Your task to perform on an android device: Go to Maps Image 0: 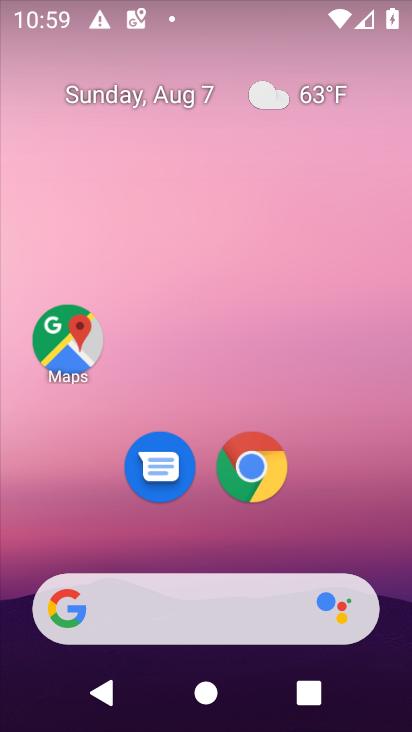
Step 0: drag from (263, 607) to (222, 249)
Your task to perform on an android device: Go to Maps Image 1: 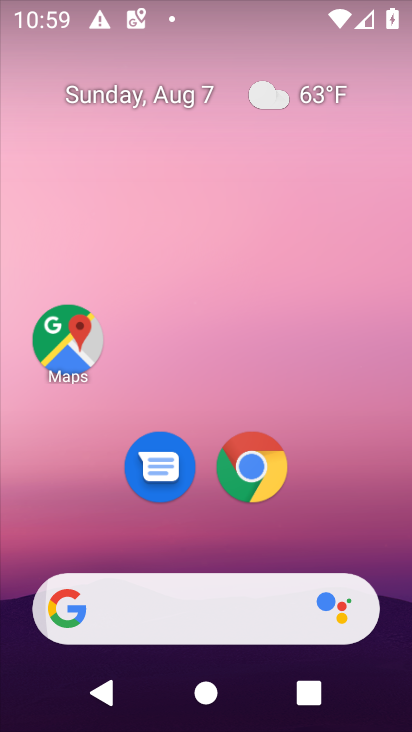
Step 1: drag from (165, 313) to (143, 102)
Your task to perform on an android device: Go to Maps Image 2: 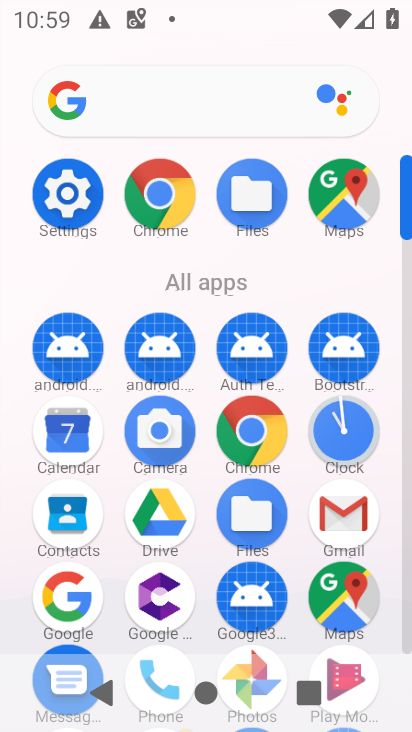
Step 2: drag from (234, 432) to (240, 222)
Your task to perform on an android device: Go to Maps Image 3: 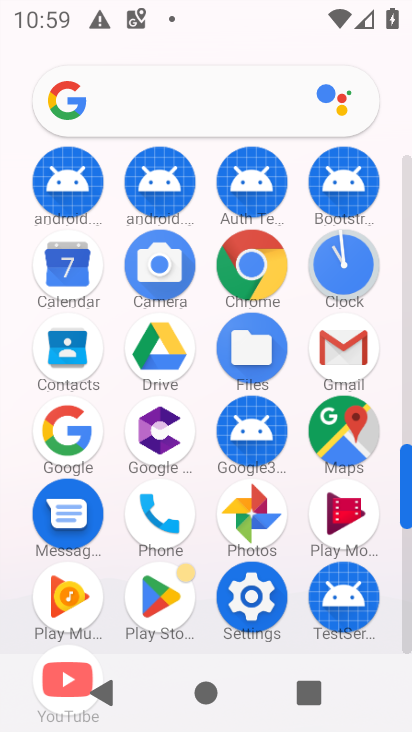
Step 3: click (342, 450)
Your task to perform on an android device: Go to Maps Image 4: 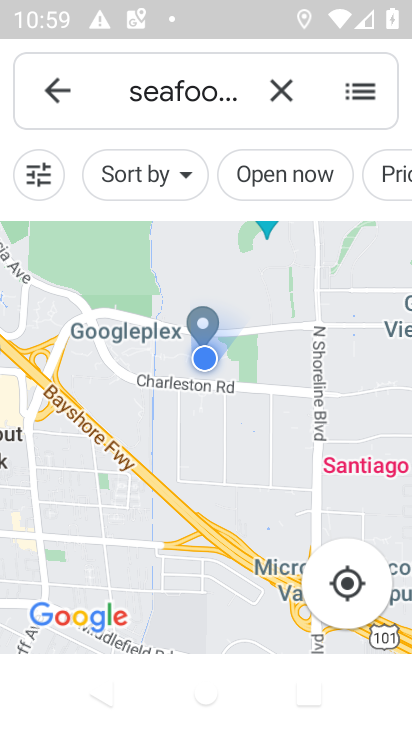
Step 4: task complete